Your task to perform on an android device: Open Google Image 0: 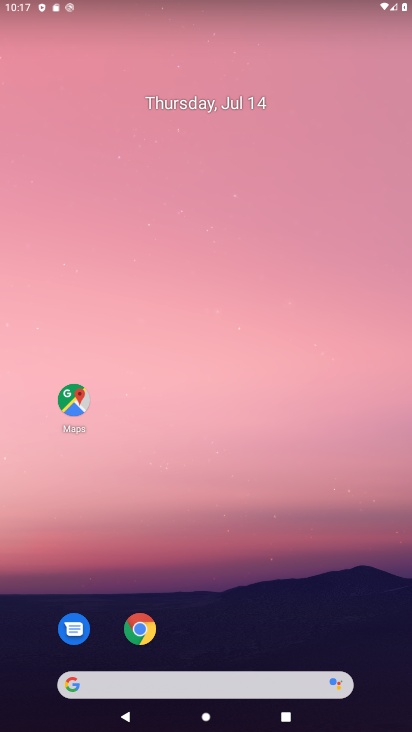
Step 0: drag from (150, 642) to (147, 263)
Your task to perform on an android device: Open Google Image 1: 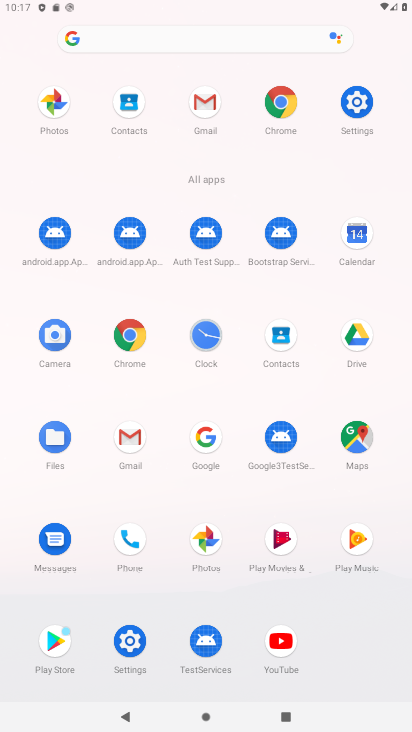
Step 1: click (203, 446)
Your task to perform on an android device: Open Google Image 2: 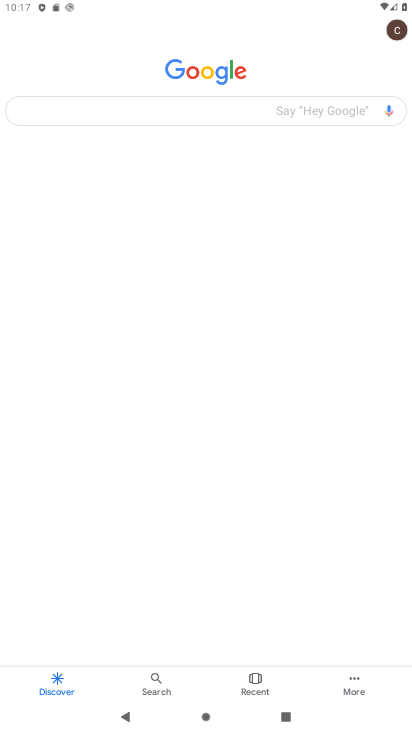
Step 2: task complete